Your task to perform on an android device: See recent photos Image 0: 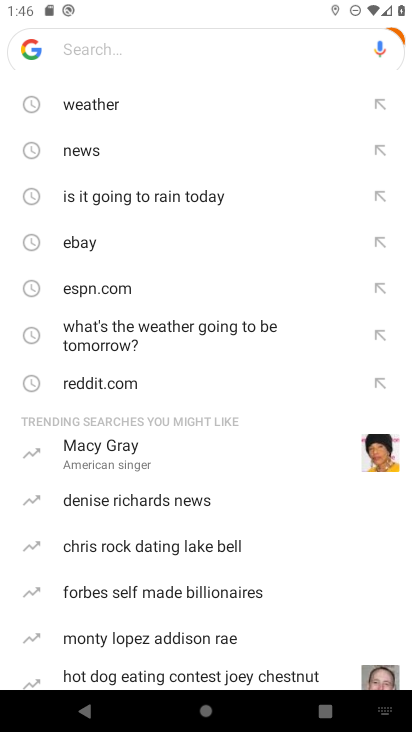
Step 0: press home button
Your task to perform on an android device: See recent photos Image 1: 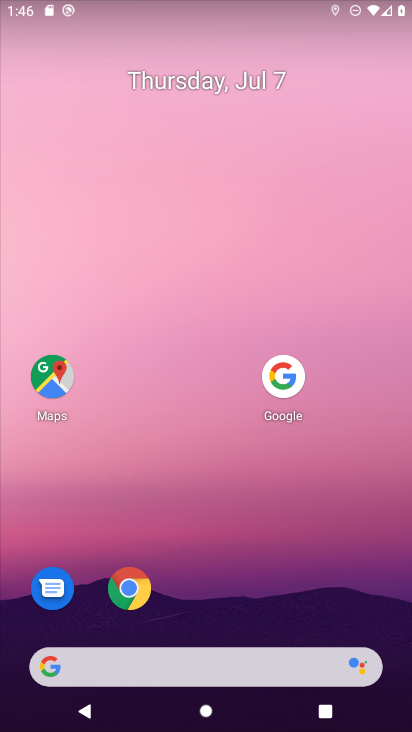
Step 1: click (53, 379)
Your task to perform on an android device: See recent photos Image 2: 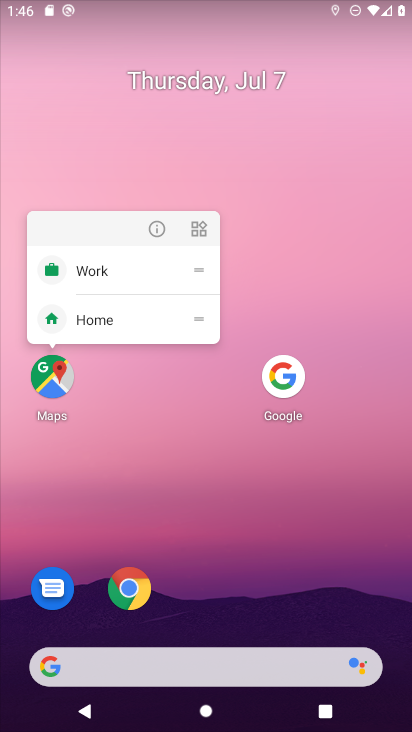
Step 2: drag from (206, 667) to (257, 26)
Your task to perform on an android device: See recent photos Image 3: 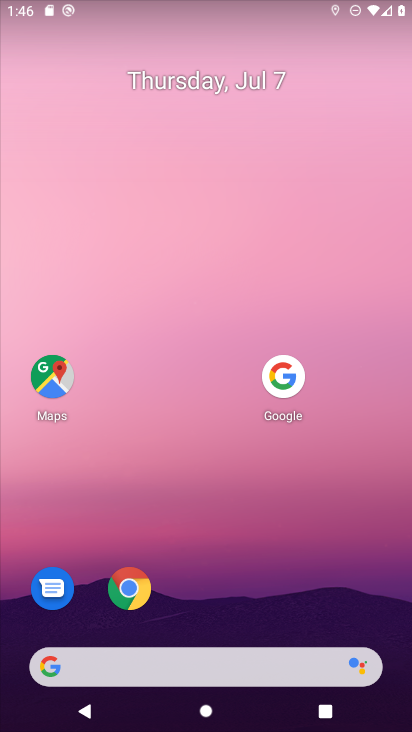
Step 3: drag from (183, 657) to (254, 38)
Your task to perform on an android device: See recent photos Image 4: 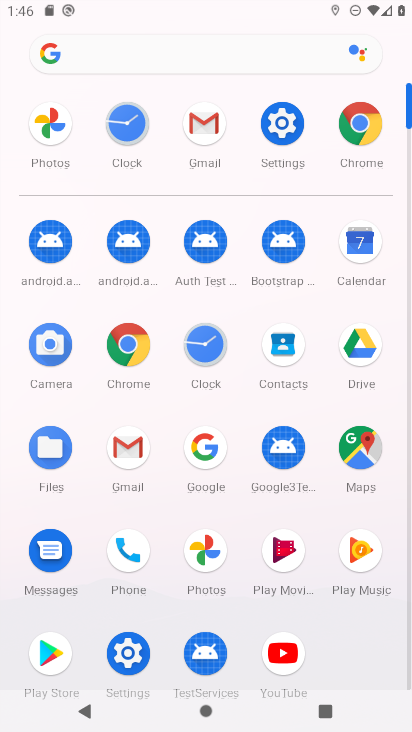
Step 4: click (207, 546)
Your task to perform on an android device: See recent photos Image 5: 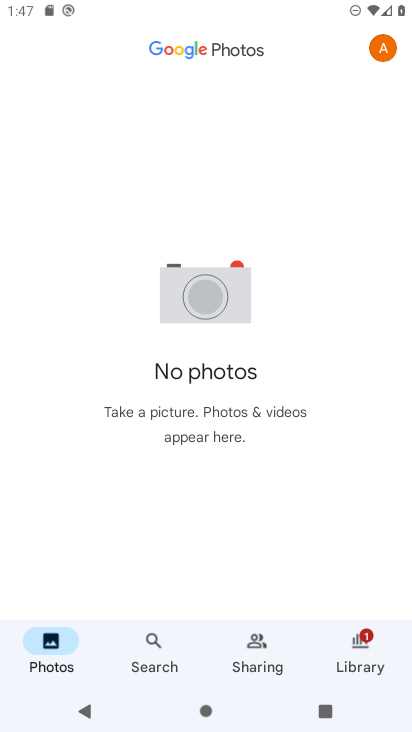
Step 5: task complete